Your task to perform on an android device: Go to Google maps Image 0: 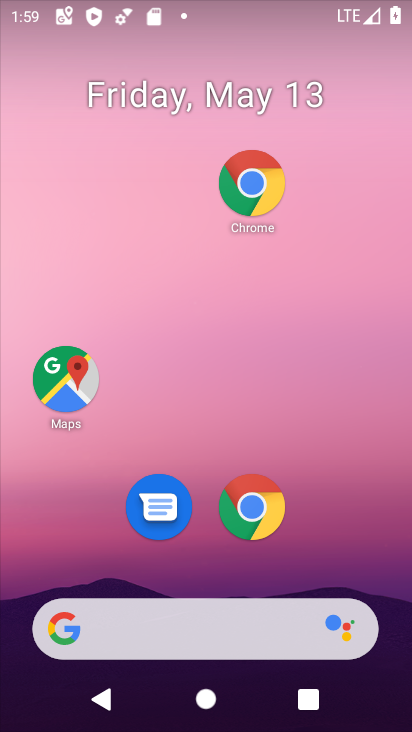
Step 0: click (181, 162)
Your task to perform on an android device: Go to Google maps Image 1: 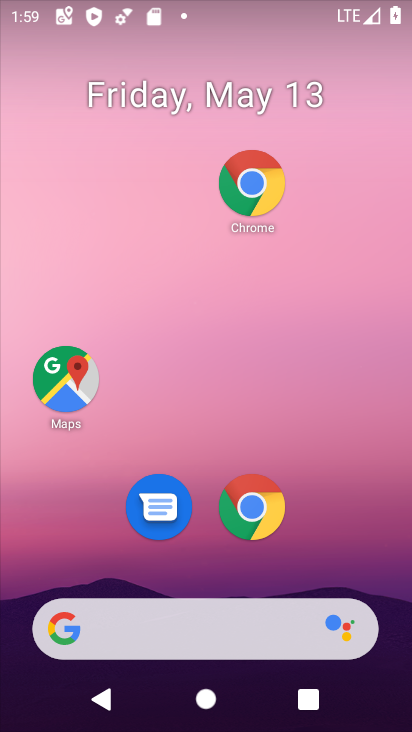
Step 1: drag from (248, 432) to (174, 135)
Your task to perform on an android device: Go to Google maps Image 2: 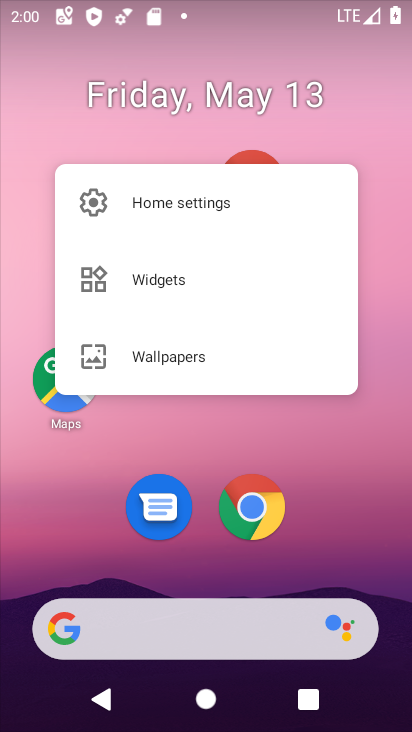
Step 2: drag from (292, 513) to (218, 127)
Your task to perform on an android device: Go to Google maps Image 3: 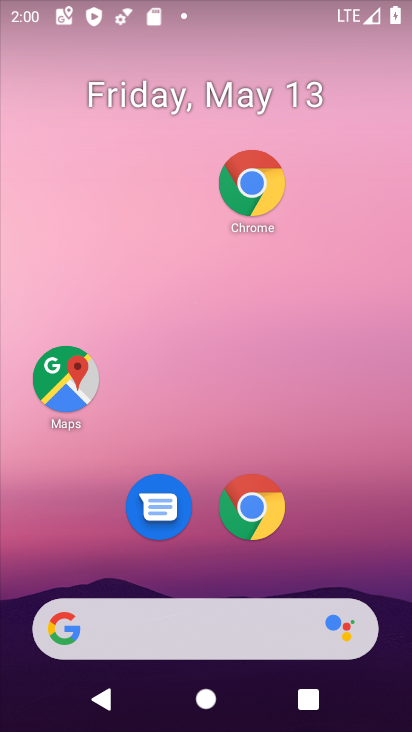
Step 3: drag from (383, 520) to (250, 139)
Your task to perform on an android device: Go to Google maps Image 4: 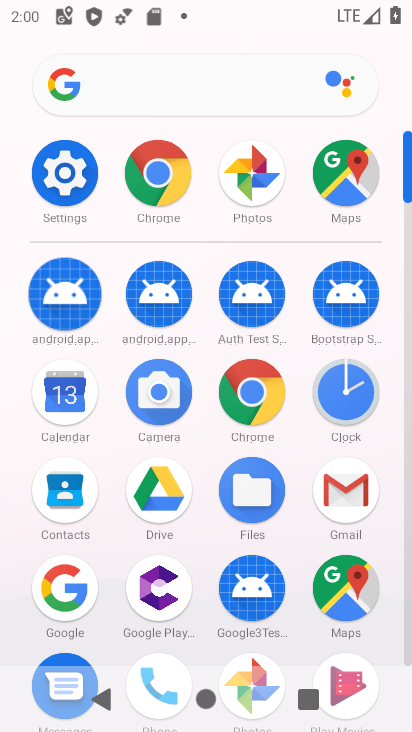
Step 4: click (266, 483)
Your task to perform on an android device: Go to Google maps Image 5: 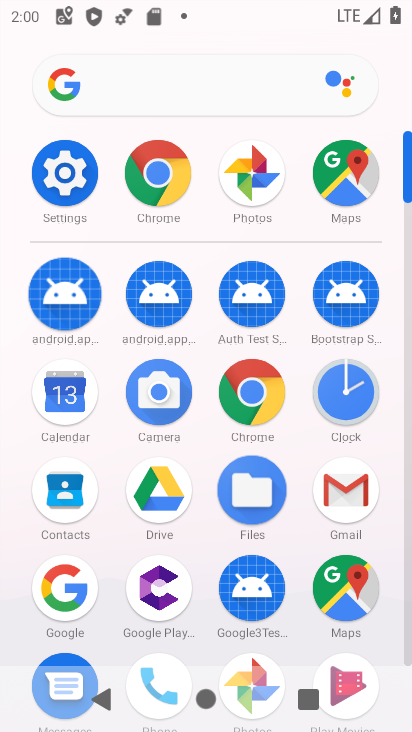
Step 5: drag from (265, 484) to (191, 0)
Your task to perform on an android device: Go to Google maps Image 6: 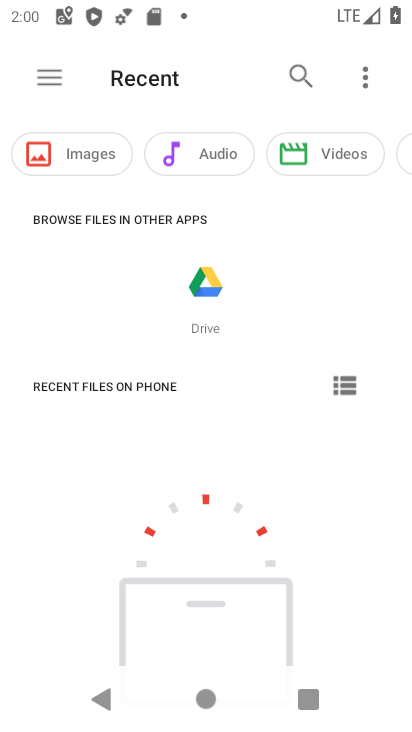
Step 6: press back button
Your task to perform on an android device: Go to Google maps Image 7: 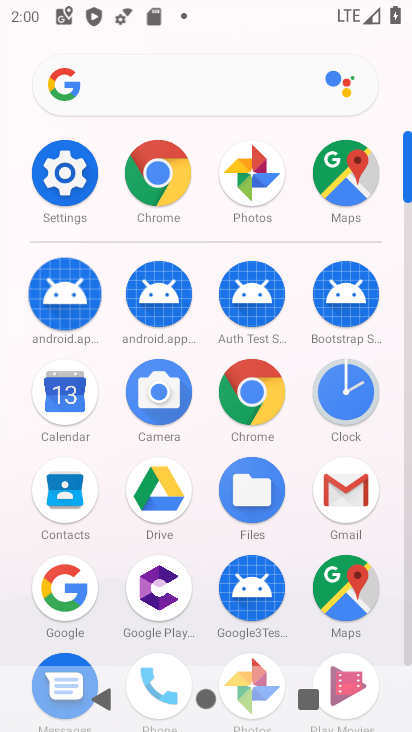
Step 7: click (335, 578)
Your task to perform on an android device: Go to Google maps Image 8: 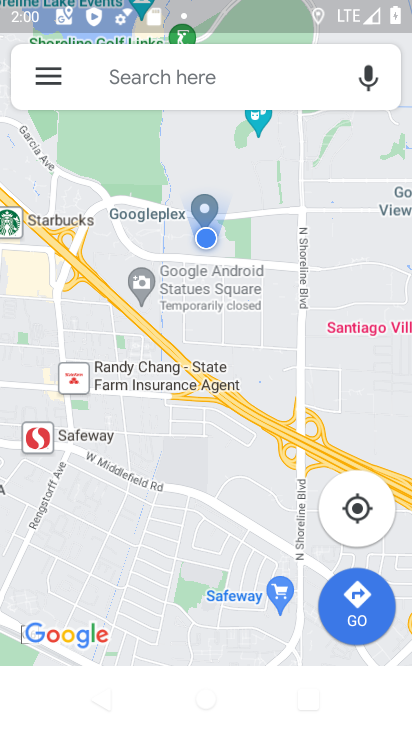
Step 8: task complete